Your task to perform on an android device: Open display settings Image 0: 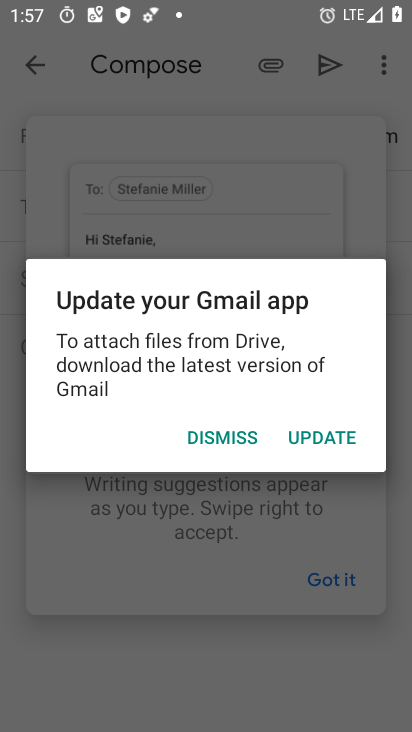
Step 0: press home button
Your task to perform on an android device: Open display settings Image 1: 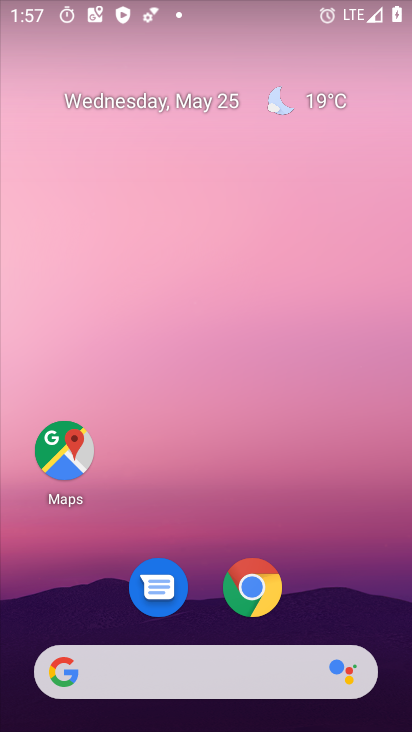
Step 1: drag from (228, 726) to (229, 108)
Your task to perform on an android device: Open display settings Image 2: 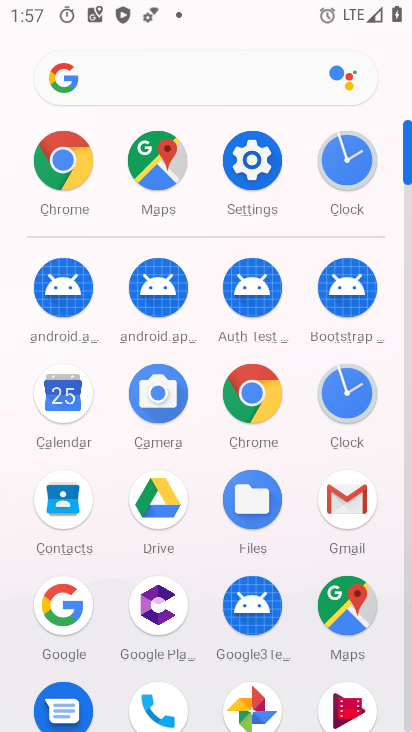
Step 2: click (253, 162)
Your task to perform on an android device: Open display settings Image 3: 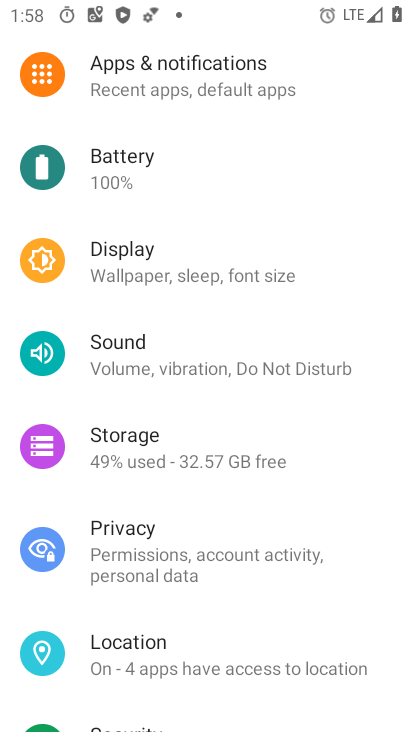
Step 3: click (119, 261)
Your task to perform on an android device: Open display settings Image 4: 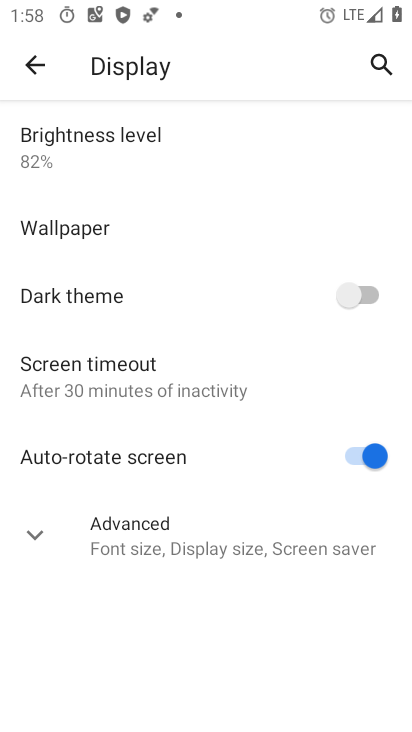
Step 4: task complete